Your task to perform on an android device: Open Chrome and go to the settings page Image 0: 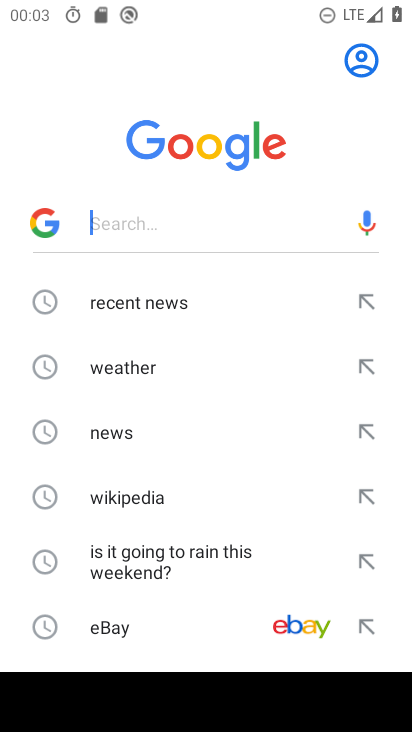
Step 0: press home button
Your task to perform on an android device: Open Chrome and go to the settings page Image 1: 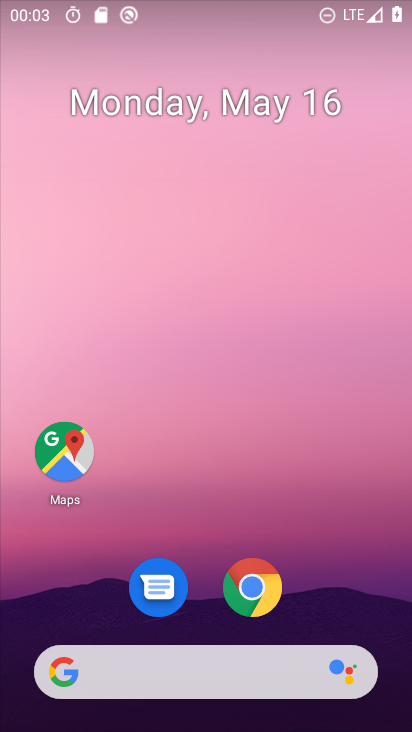
Step 1: click (240, 596)
Your task to perform on an android device: Open Chrome and go to the settings page Image 2: 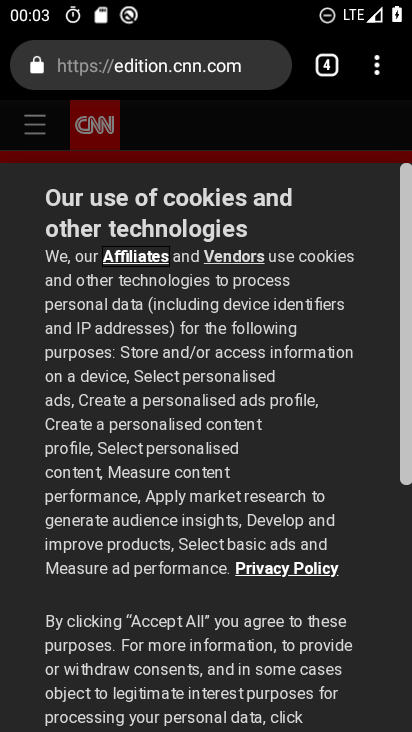
Step 2: click (370, 67)
Your task to perform on an android device: Open Chrome and go to the settings page Image 3: 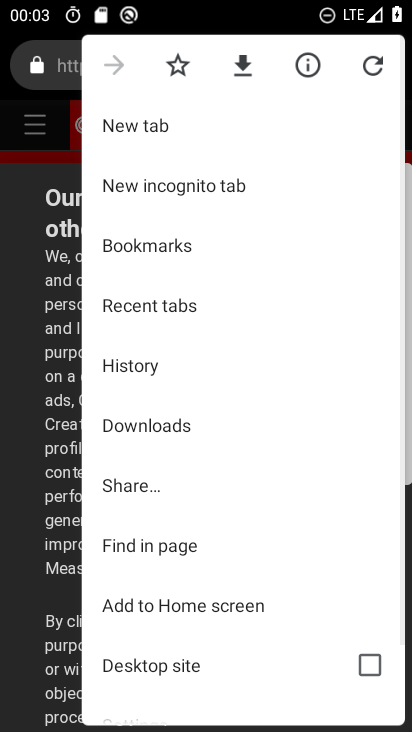
Step 3: drag from (219, 612) to (256, 335)
Your task to perform on an android device: Open Chrome and go to the settings page Image 4: 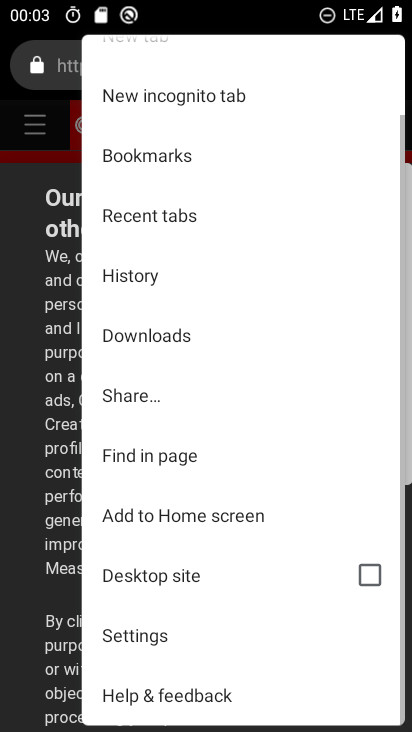
Step 4: click (197, 636)
Your task to perform on an android device: Open Chrome and go to the settings page Image 5: 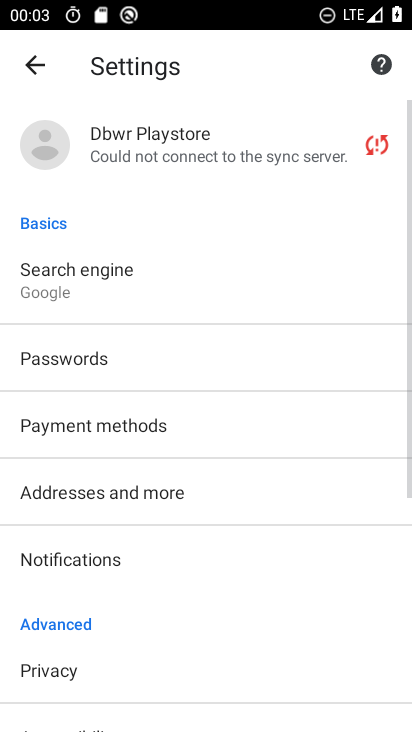
Step 5: task complete